Your task to perform on an android device: turn on data saver in the chrome app Image 0: 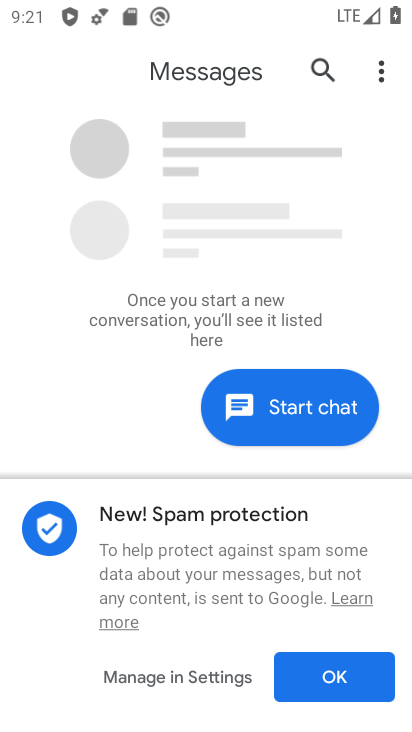
Step 0: press back button
Your task to perform on an android device: turn on data saver in the chrome app Image 1: 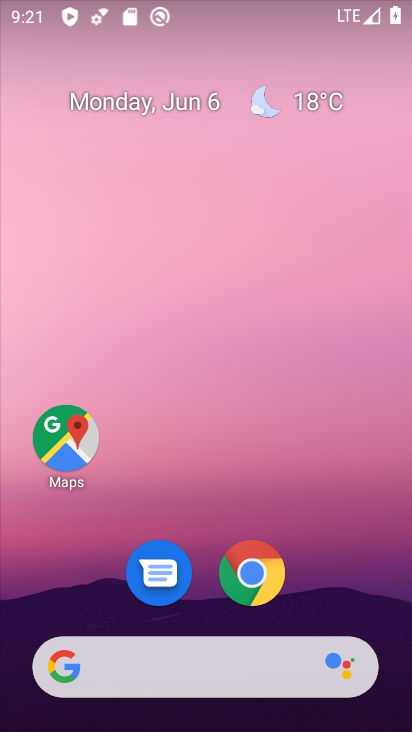
Step 1: click (262, 578)
Your task to perform on an android device: turn on data saver in the chrome app Image 2: 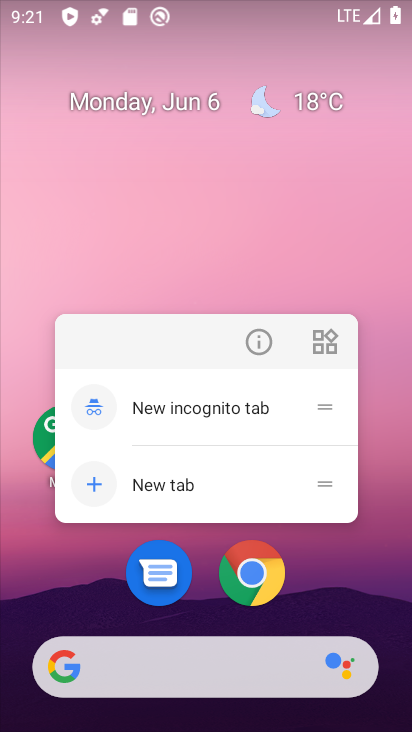
Step 2: click (260, 570)
Your task to perform on an android device: turn on data saver in the chrome app Image 3: 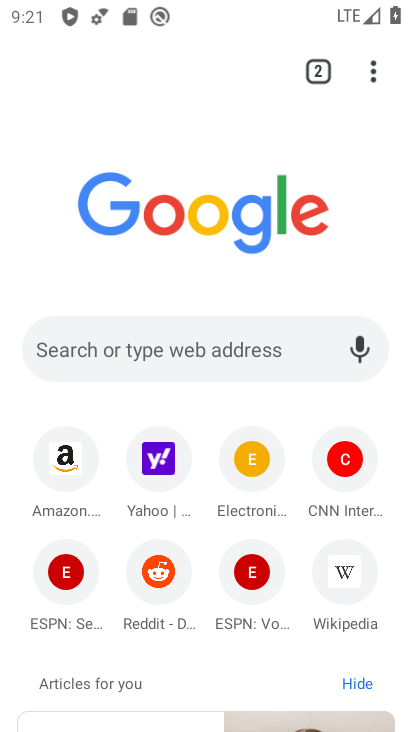
Step 3: drag from (375, 73) to (153, 594)
Your task to perform on an android device: turn on data saver in the chrome app Image 4: 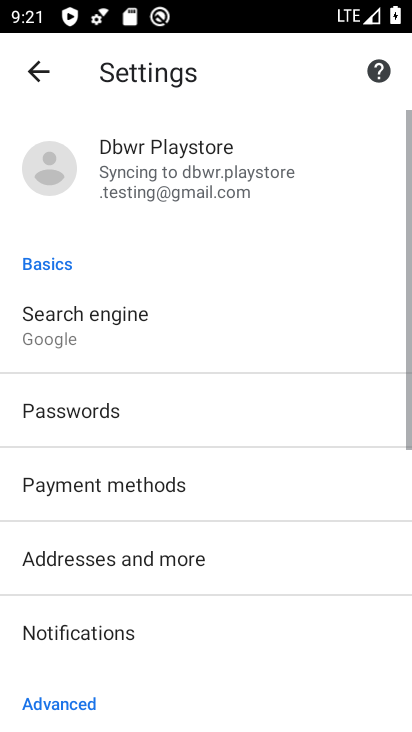
Step 4: drag from (149, 630) to (260, 136)
Your task to perform on an android device: turn on data saver in the chrome app Image 5: 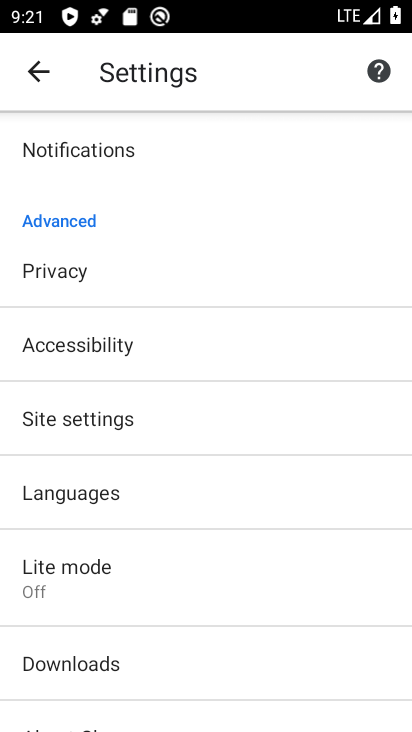
Step 5: click (80, 579)
Your task to perform on an android device: turn on data saver in the chrome app Image 6: 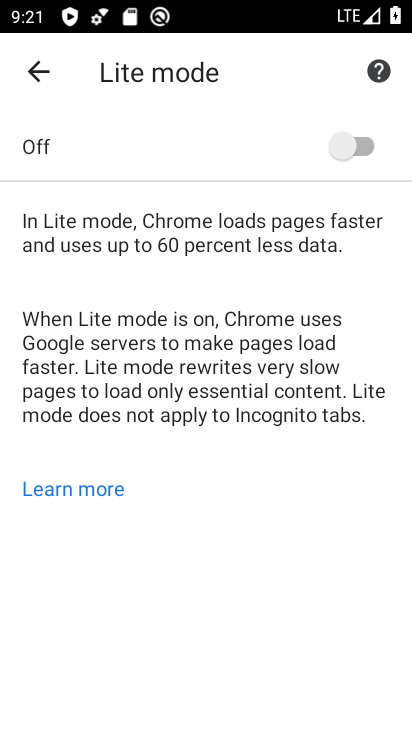
Step 6: click (353, 136)
Your task to perform on an android device: turn on data saver in the chrome app Image 7: 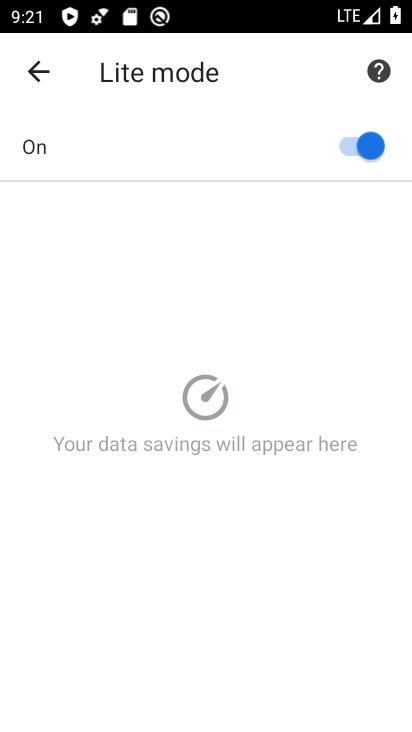
Step 7: task complete